Your task to perform on an android device: What's the weather today? Image 0: 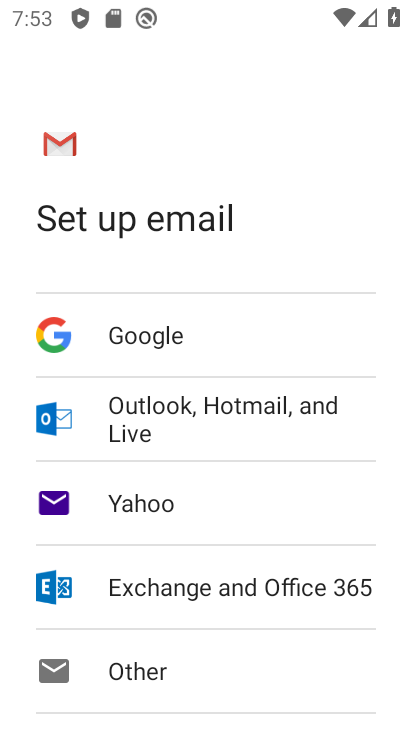
Step 0: press home button
Your task to perform on an android device: What's the weather today? Image 1: 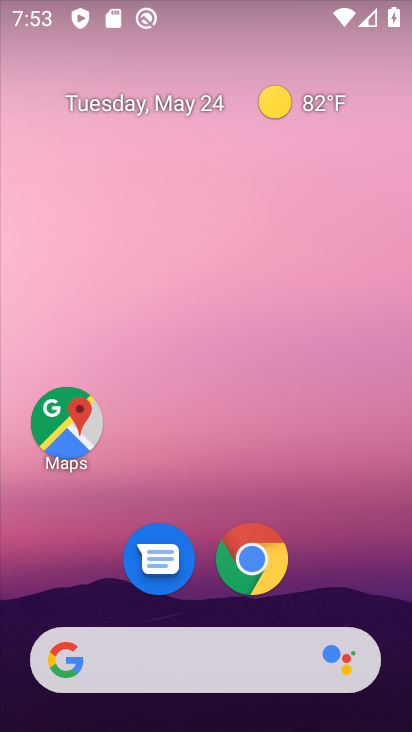
Step 1: click (229, 657)
Your task to perform on an android device: What's the weather today? Image 2: 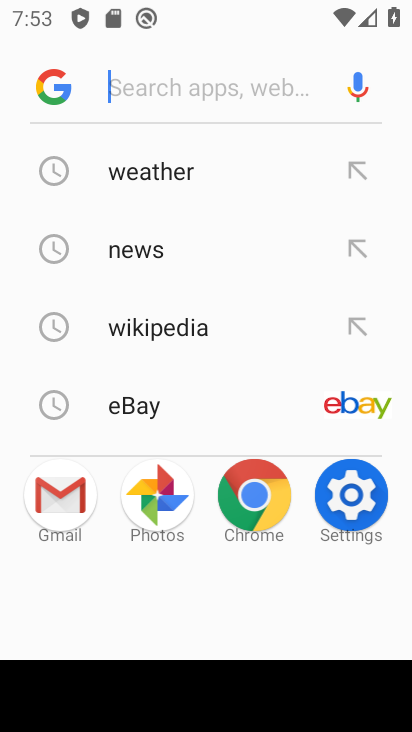
Step 2: click (175, 170)
Your task to perform on an android device: What's the weather today? Image 3: 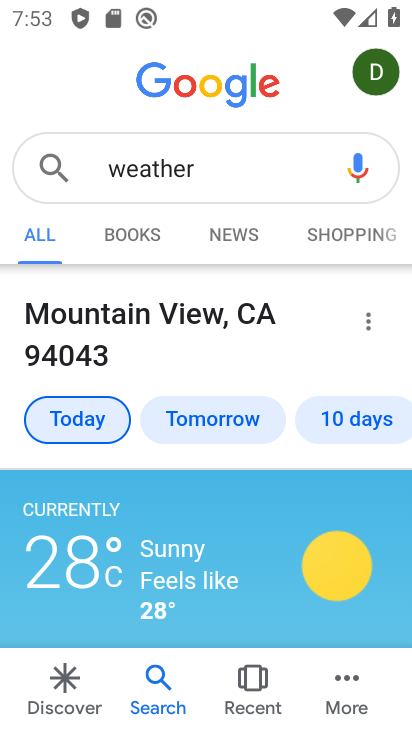
Step 3: click (99, 420)
Your task to perform on an android device: What's the weather today? Image 4: 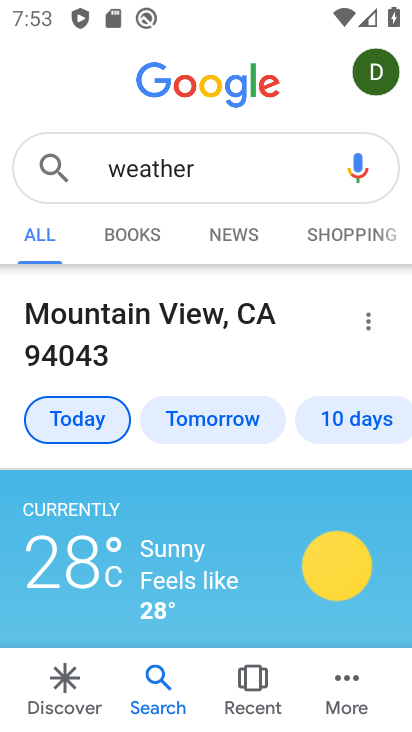
Step 4: click (99, 420)
Your task to perform on an android device: What's the weather today? Image 5: 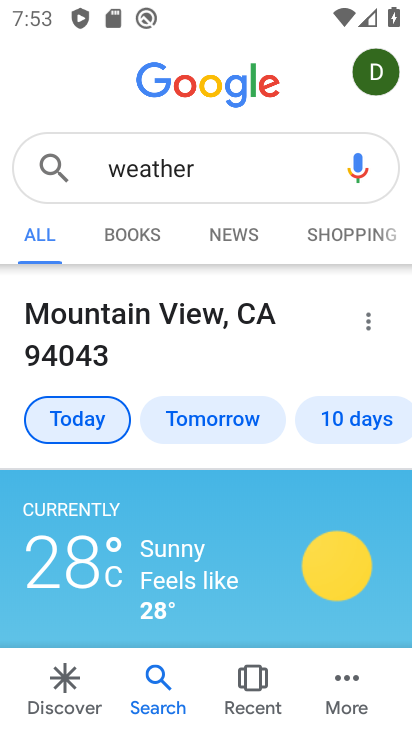
Step 5: task complete